Your task to perform on an android device: Search for Mexican restaurants on Maps Image 0: 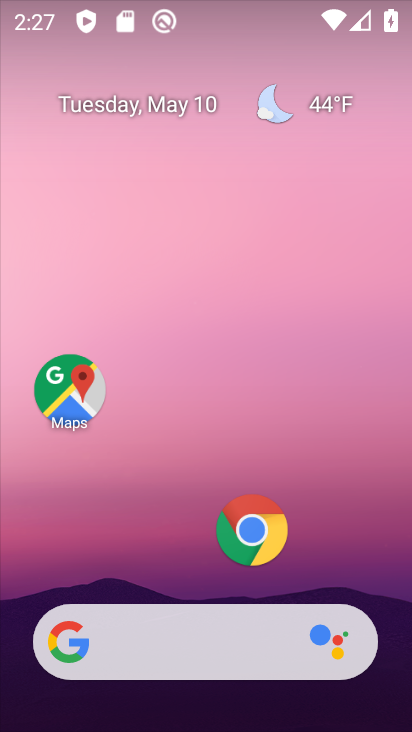
Step 0: click (214, 183)
Your task to perform on an android device: Search for Mexican restaurants on Maps Image 1: 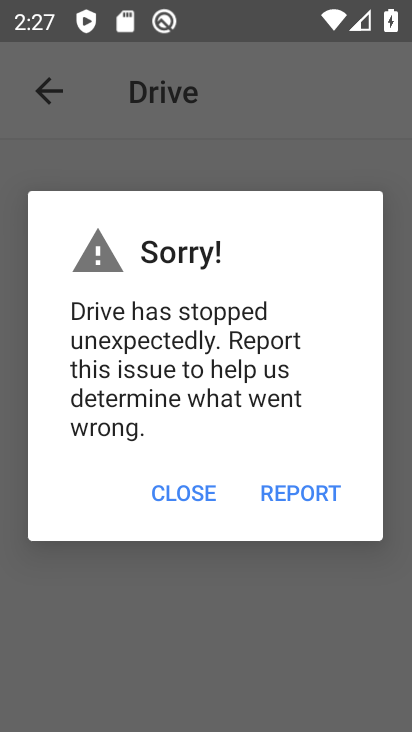
Step 1: press home button
Your task to perform on an android device: Search for Mexican restaurants on Maps Image 2: 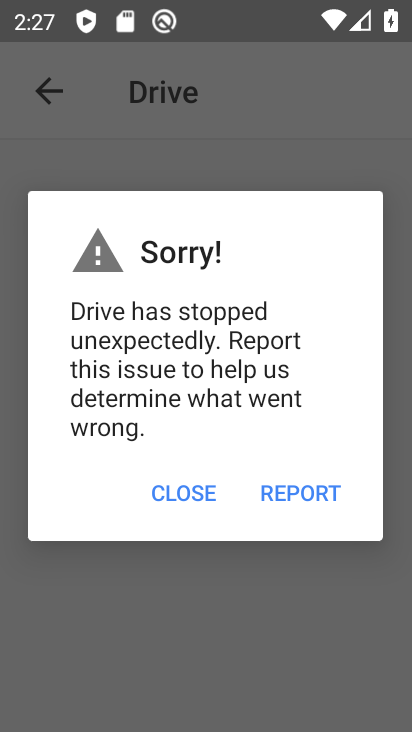
Step 2: press home button
Your task to perform on an android device: Search for Mexican restaurants on Maps Image 3: 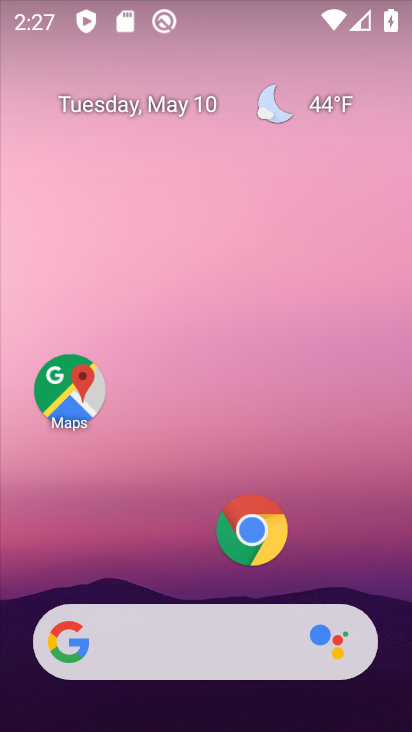
Step 3: drag from (183, 559) to (211, 111)
Your task to perform on an android device: Search for Mexican restaurants on Maps Image 4: 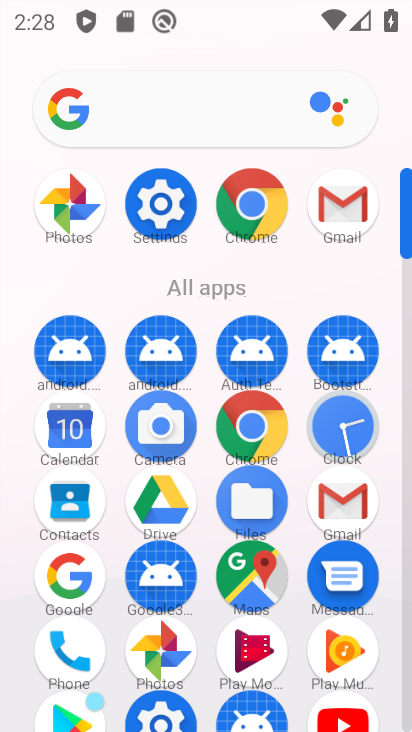
Step 4: click (243, 577)
Your task to perform on an android device: Search for Mexican restaurants on Maps Image 5: 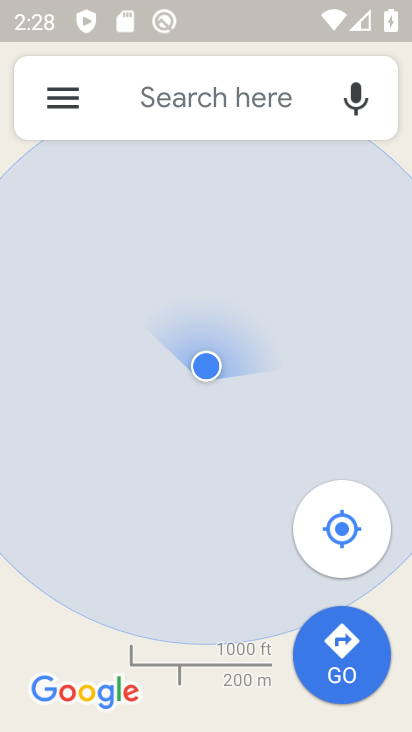
Step 5: click (179, 111)
Your task to perform on an android device: Search for Mexican restaurants on Maps Image 6: 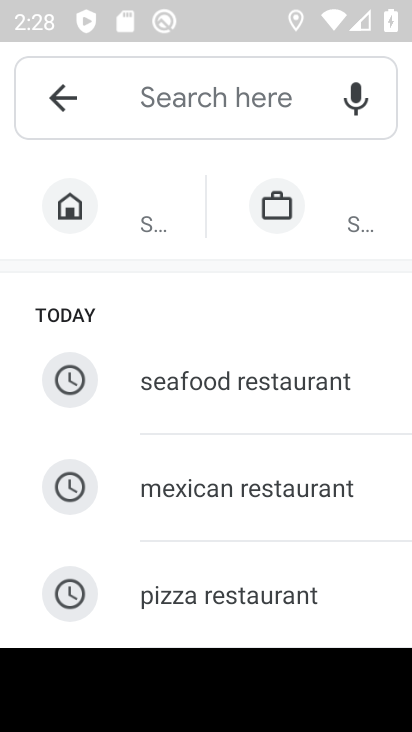
Step 6: click (228, 485)
Your task to perform on an android device: Search for Mexican restaurants on Maps Image 7: 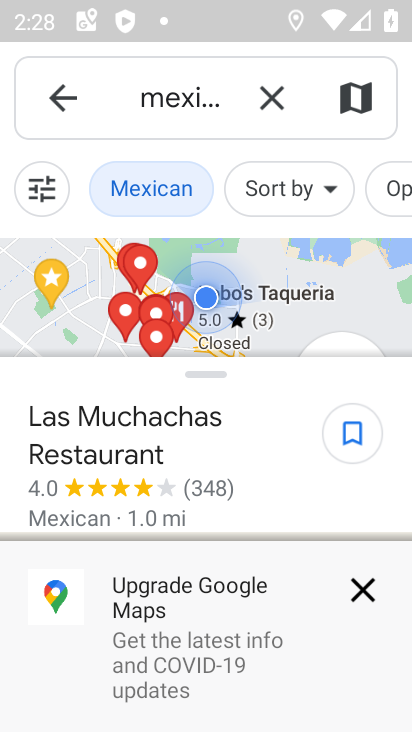
Step 7: task complete